Your task to perform on an android device: What's the weather going to be tomorrow? Image 0: 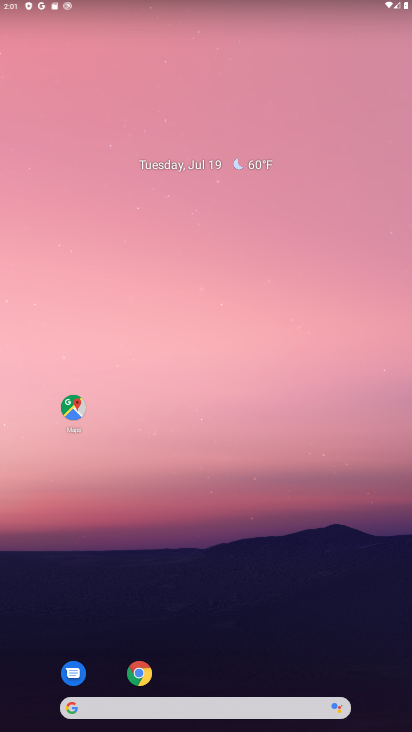
Step 0: press home button
Your task to perform on an android device: What's the weather going to be tomorrow? Image 1: 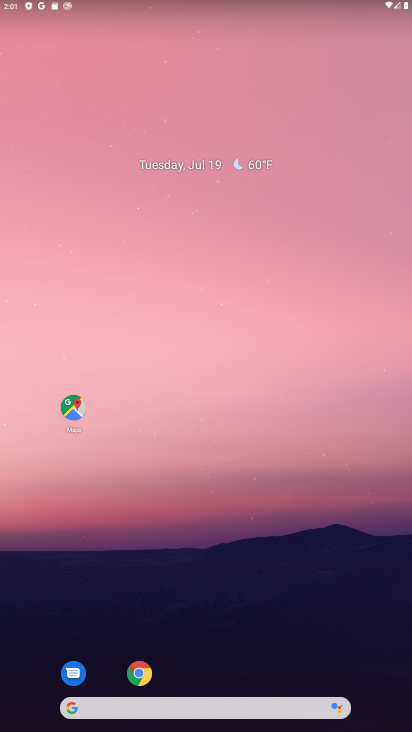
Step 1: click (133, 677)
Your task to perform on an android device: What's the weather going to be tomorrow? Image 2: 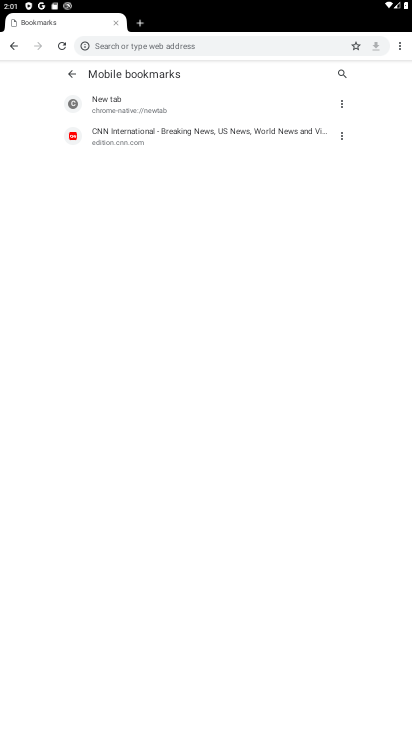
Step 2: click (278, 46)
Your task to perform on an android device: What's the weather going to be tomorrow? Image 3: 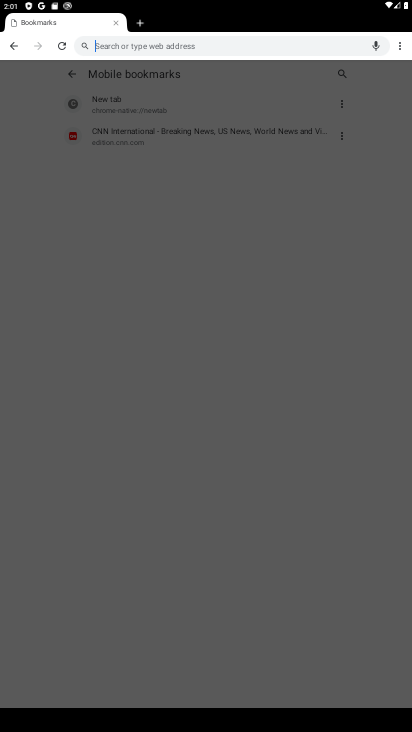
Step 3: type "What's the weather going to be tomorrow?"
Your task to perform on an android device: What's the weather going to be tomorrow? Image 4: 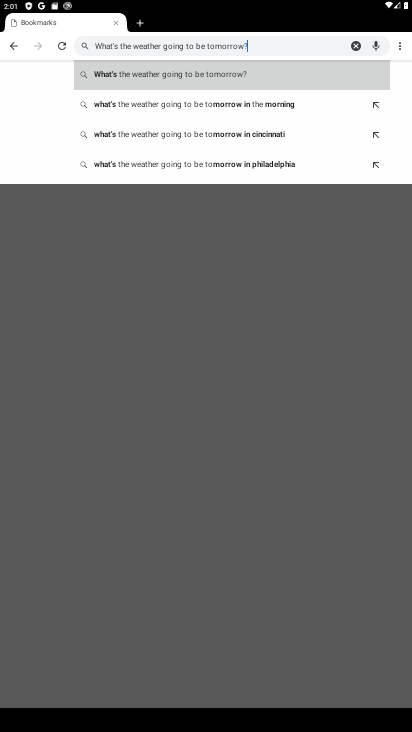
Step 4: click (229, 75)
Your task to perform on an android device: What's the weather going to be tomorrow? Image 5: 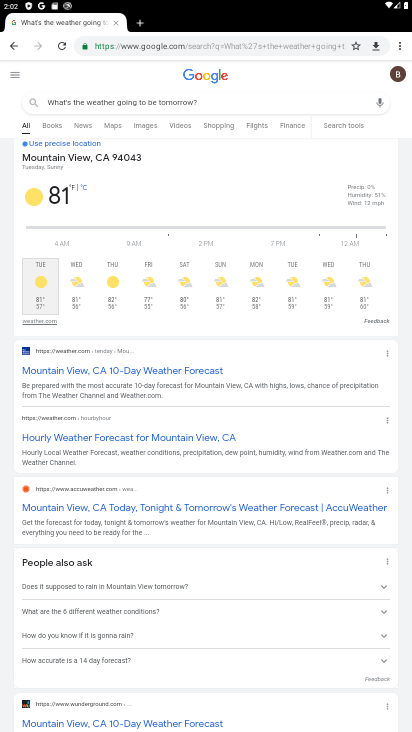
Step 5: task complete